Your task to perform on an android device: turn on location history Image 0: 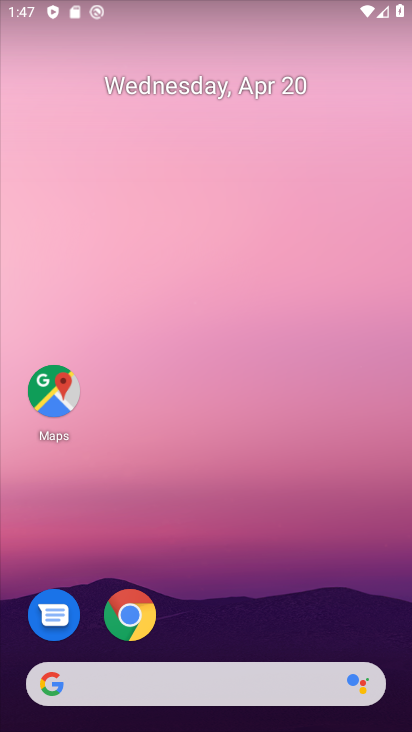
Step 0: drag from (282, 573) to (283, 50)
Your task to perform on an android device: turn on location history Image 1: 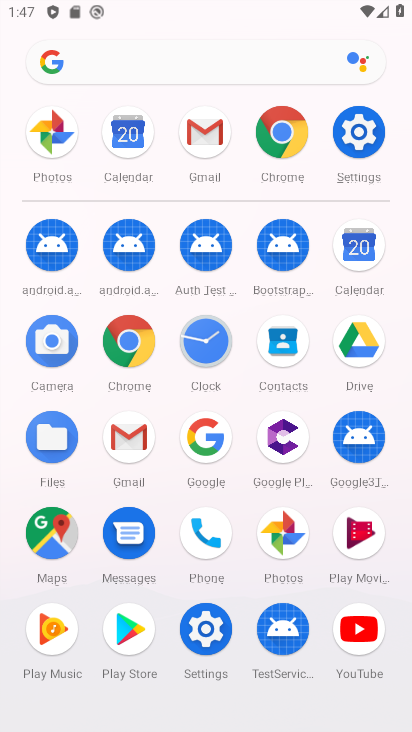
Step 1: click (371, 122)
Your task to perform on an android device: turn on location history Image 2: 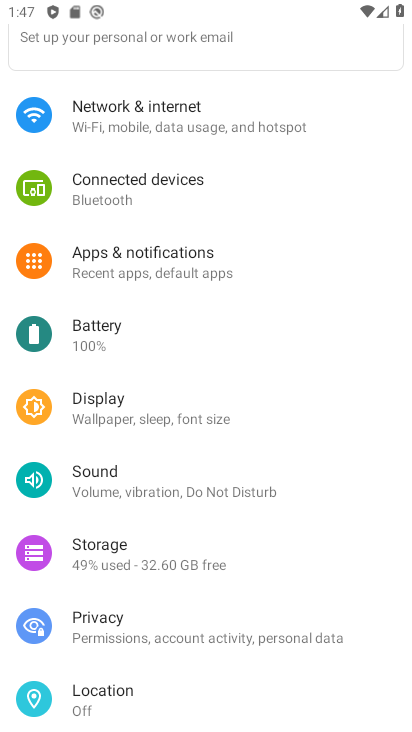
Step 2: click (234, 693)
Your task to perform on an android device: turn on location history Image 3: 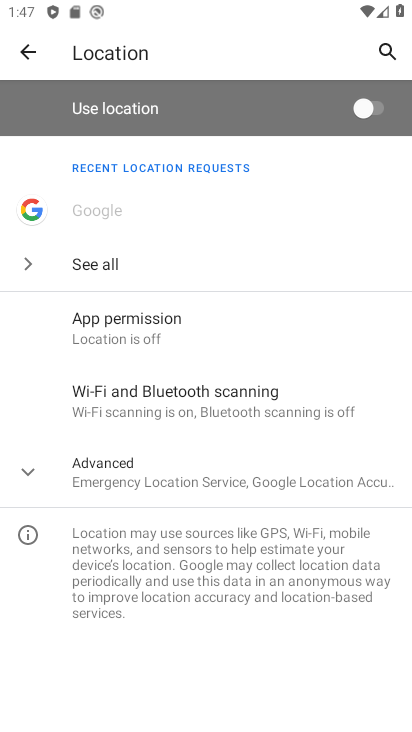
Step 3: click (250, 472)
Your task to perform on an android device: turn on location history Image 4: 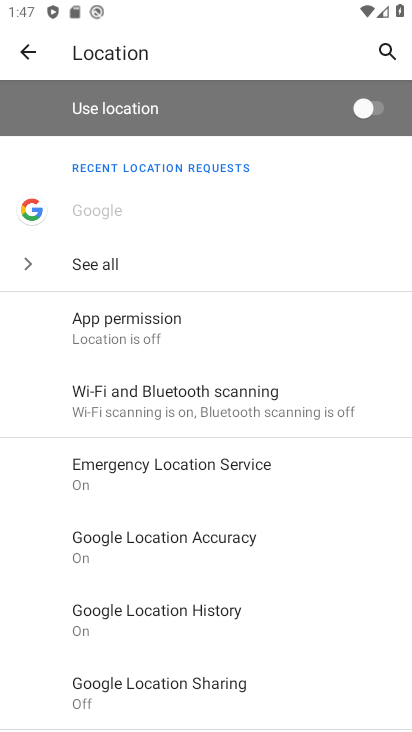
Step 4: click (219, 613)
Your task to perform on an android device: turn on location history Image 5: 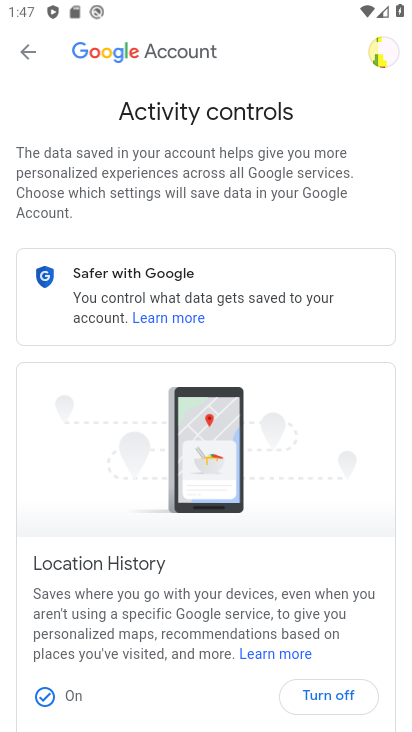
Step 5: task complete